Your task to perform on an android device: Open network settings Image 0: 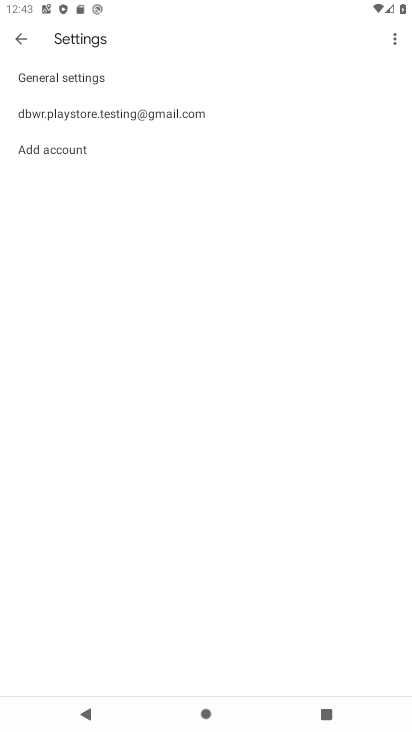
Step 0: press home button
Your task to perform on an android device: Open network settings Image 1: 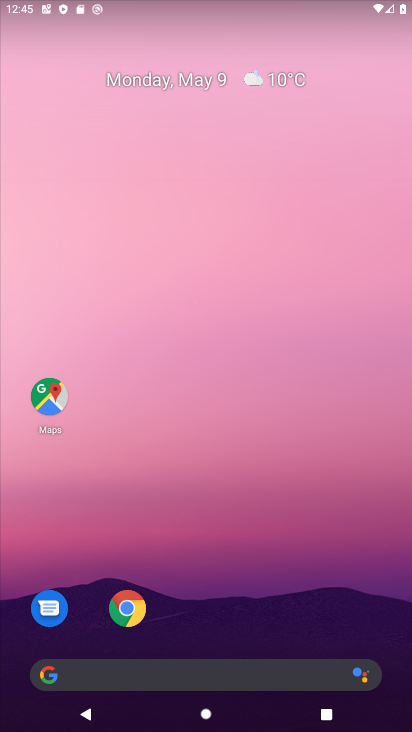
Step 1: drag from (269, 614) to (275, 139)
Your task to perform on an android device: Open network settings Image 2: 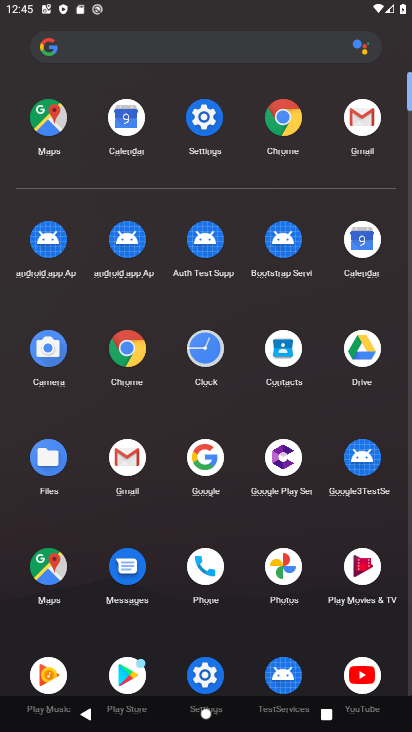
Step 2: click (207, 157)
Your task to perform on an android device: Open network settings Image 3: 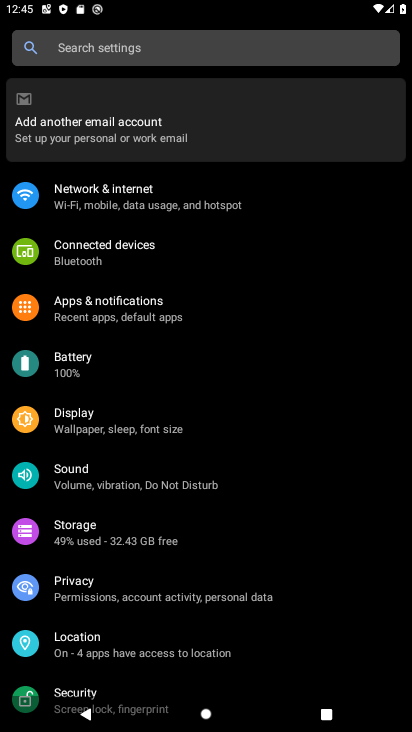
Step 3: click (199, 199)
Your task to perform on an android device: Open network settings Image 4: 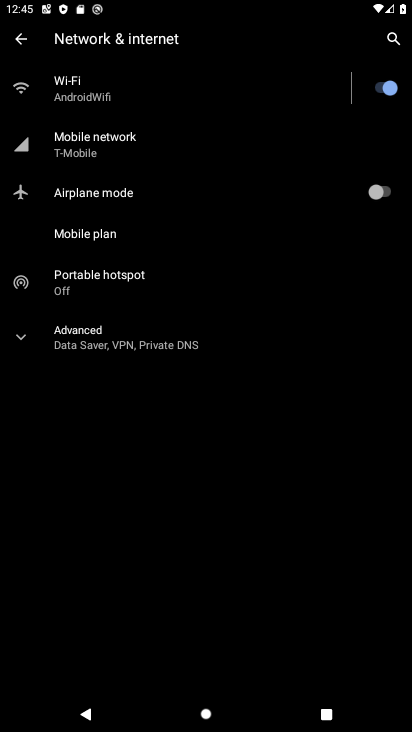
Step 4: task complete